Your task to perform on an android device: Is it going to rain this weekend? Image 0: 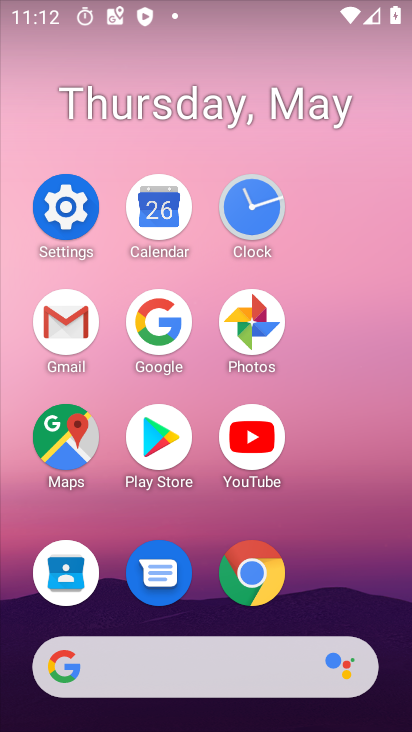
Step 0: click (167, 317)
Your task to perform on an android device: Is it going to rain this weekend? Image 1: 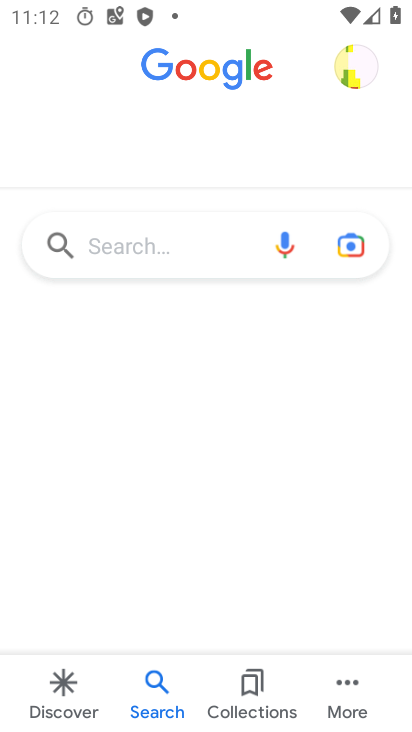
Step 1: click (138, 238)
Your task to perform on an android device: Is it going to rain this weekend? Image 2: 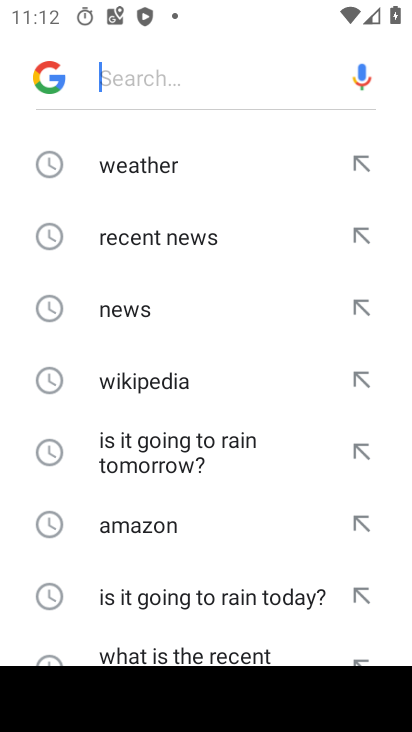
Step 2: click (139, 181)
Your task to perform on an android device: Is it going to rain this weekend? Image 3: 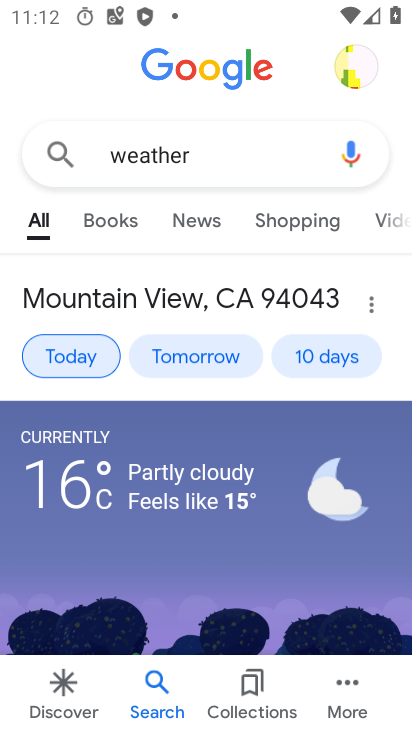
Step 3: click (338, 348)
Your task to perform on an android device: Is it going to rain this weekend? Image 4: 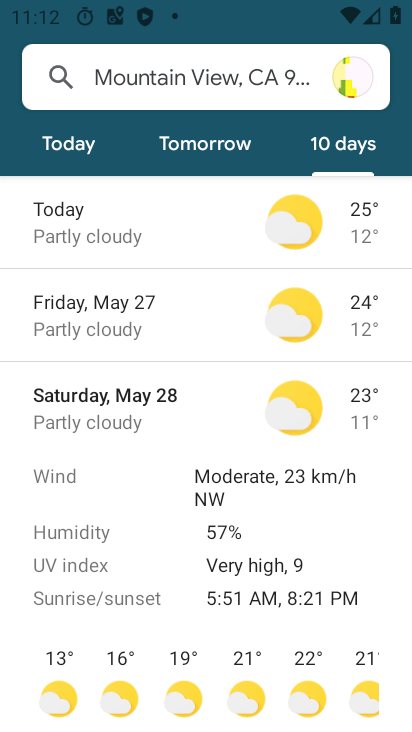
Step 4: click (196, 391)
Your task to perform on an android device: Is it going to rain this weekend? Image 5: 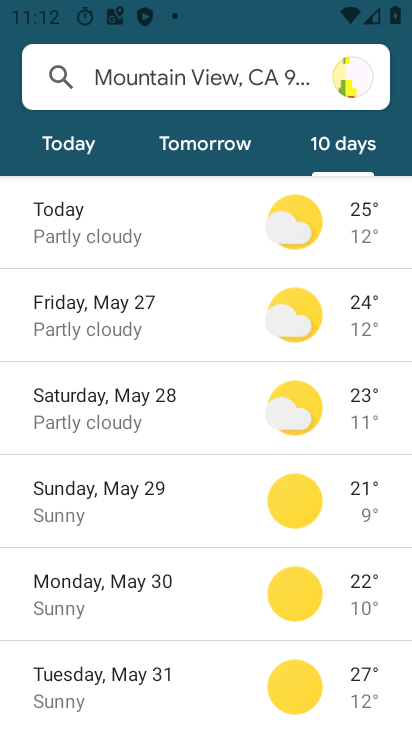
Step 5: click (196, 391)
Your task to perform on an android device: Is it going to rain this weekend? Image 6: 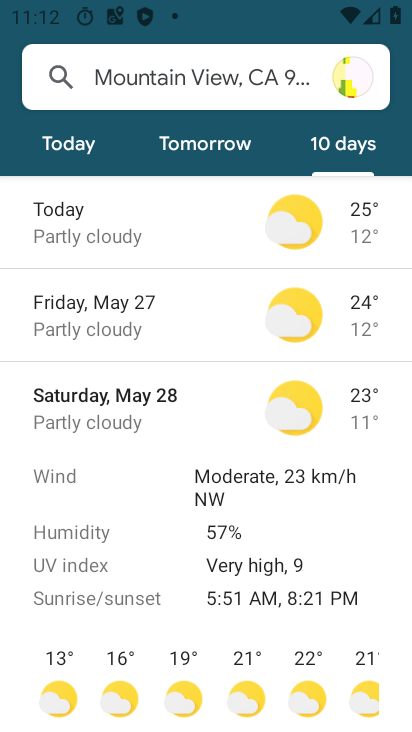
Step 6: task complete